Your task to perform on an android device: Open Youtube and go to the subscriptions tab Image 0: 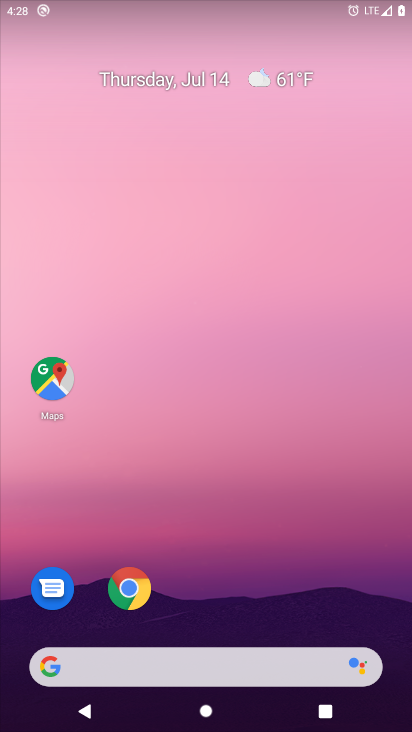
Step 0: press home button
Your task to perform on an android device: Open Youtube and go to the subscriptions tab Image 1: 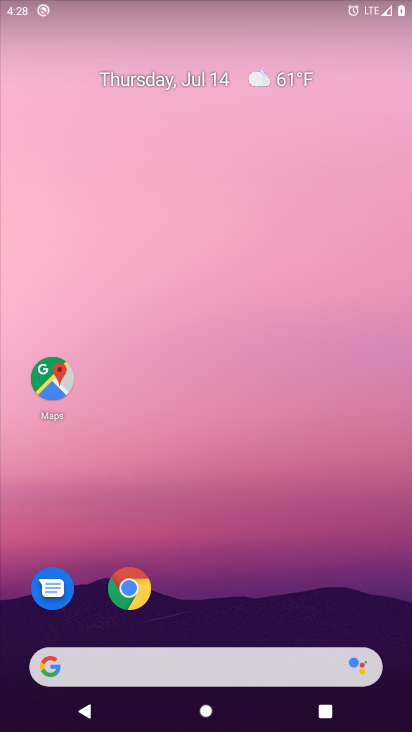
Step 1: drag from (228, 597) to (228, 10)
Your task to perform on an android device: Open Youtube and go to the subscriptions tab Image 2: 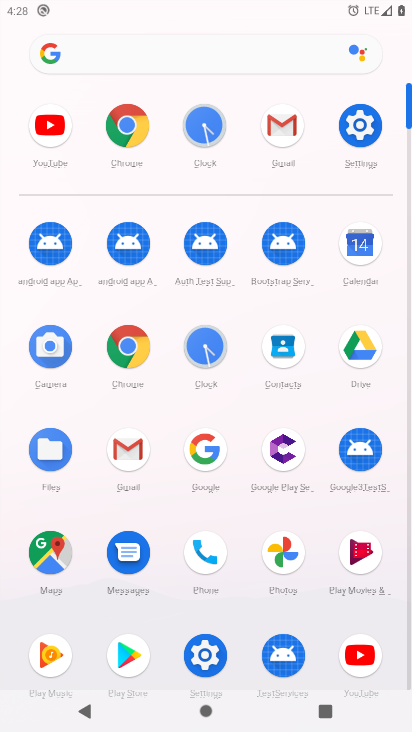
Step 2: click (361, 647)
Your task to perform on an android device: Open Youtube and go to the subscriptions tab Image 3: 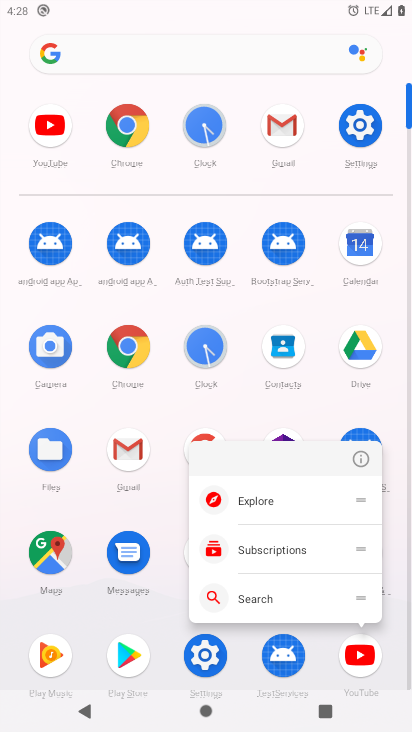
Step 3: click (374, 657)
Your task to perform on an android device: Open Youtube and go to the subscriptions tab Image 4: 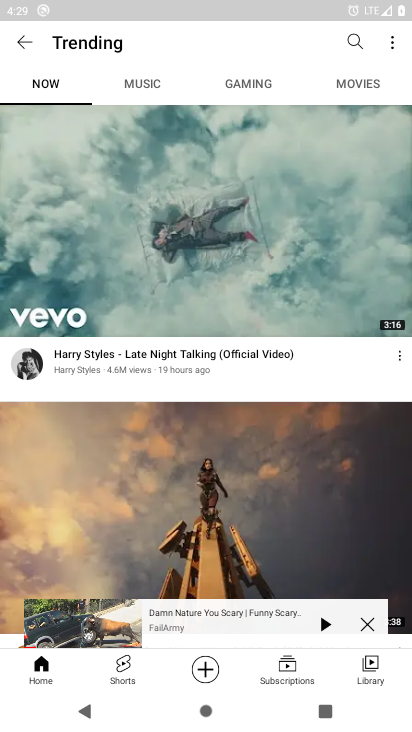
Step 4: click (286, 665)
Your task to perform on an android device: Open Youtube and go to the subscriptions tab Image 5: 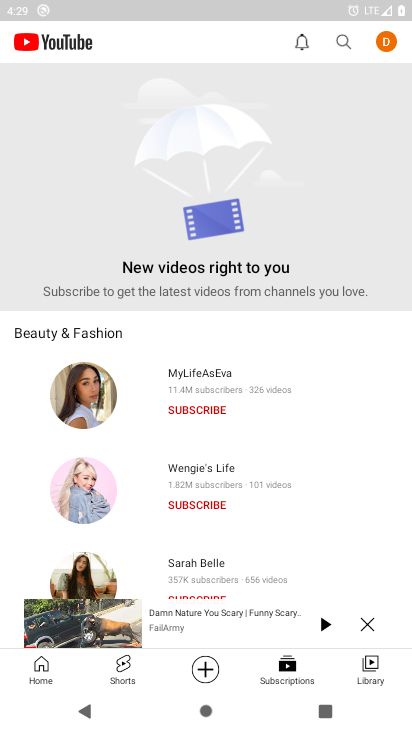
Step 5: task complete